Your task to perform on an android device: Open battery settings Image 0: 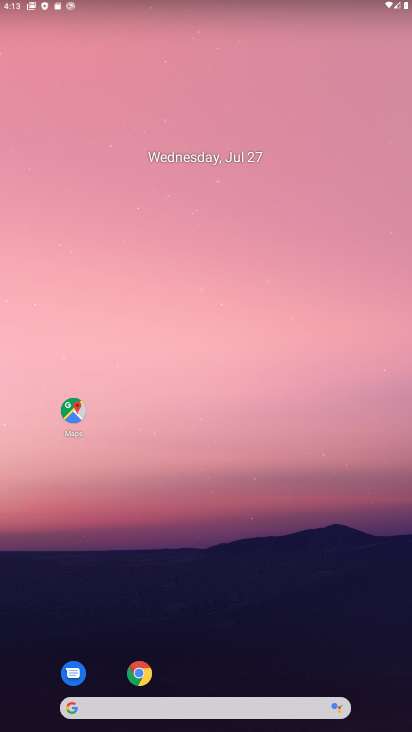
Step 0: drag from (247, 630) to (249, 144)
Your task to perform on an android device: Open battery settings Image 1: 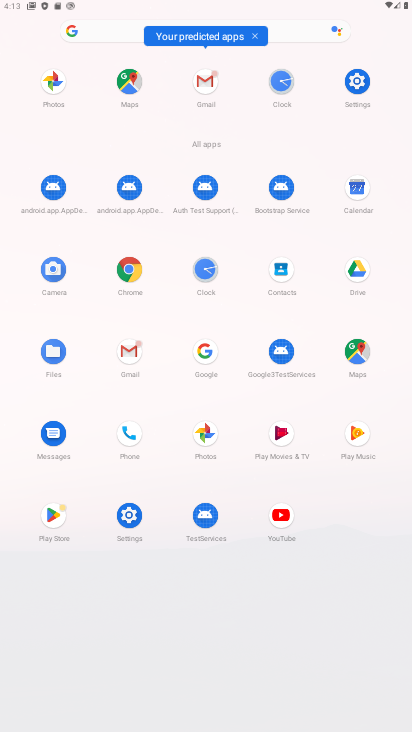
Step 1: click (125, 529)
Your task to perform on an android device: Open battery settings Image 2: 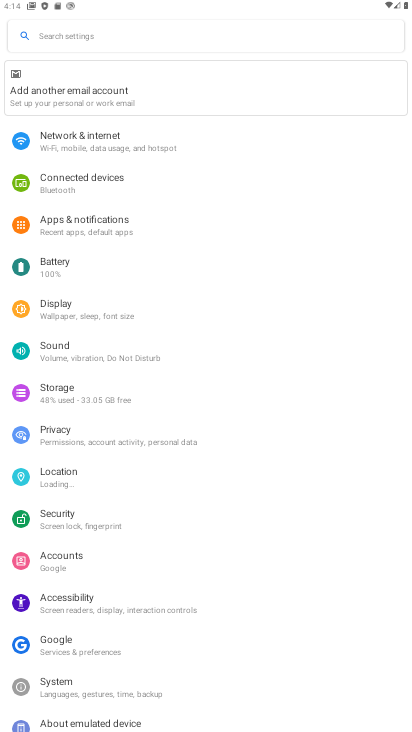
Step 2: click (96, 258)
Your task to perform on an android device: Open battery settings Image 3: 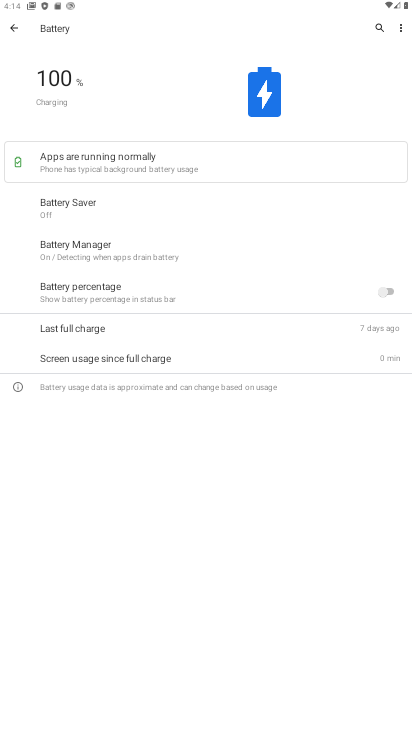
Step 3: task complete